Your task to perform on an android device: Open notification settings Image 0: 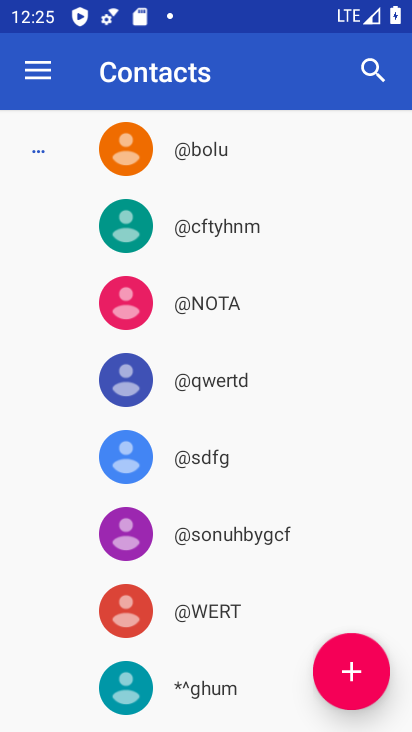
Step 0: press home button
Your task to perform on an android device: Open notification settings Image 1: 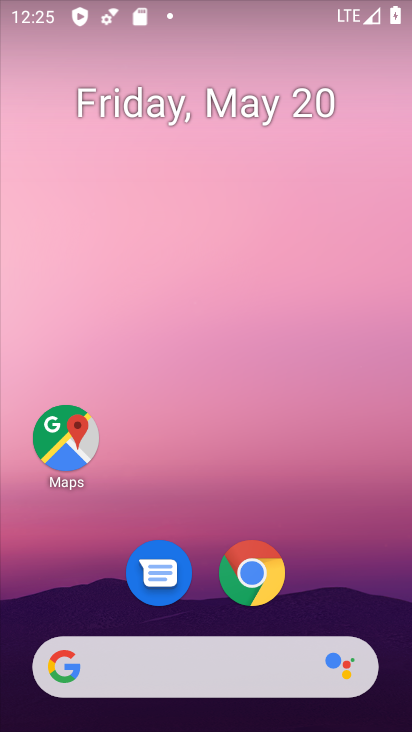
Step 1: drag from (199, 604) to (289, 78)
Your task to perform on an android device: Open notification settings Image 2: 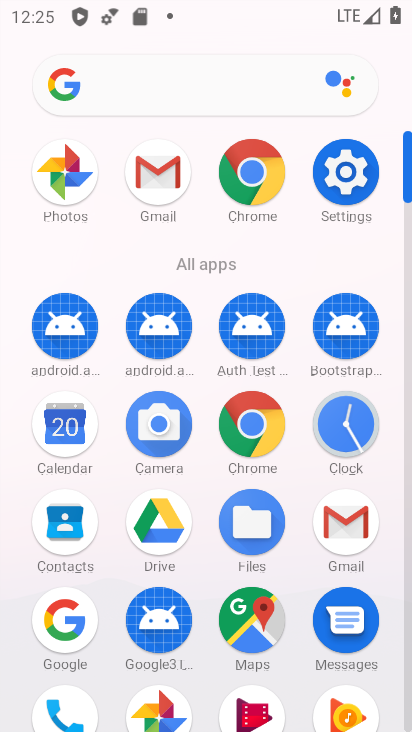
Step 2: drag from (209, 546) to (221, 341)
Your task to perform on an android device: Open notification settings Image 3: 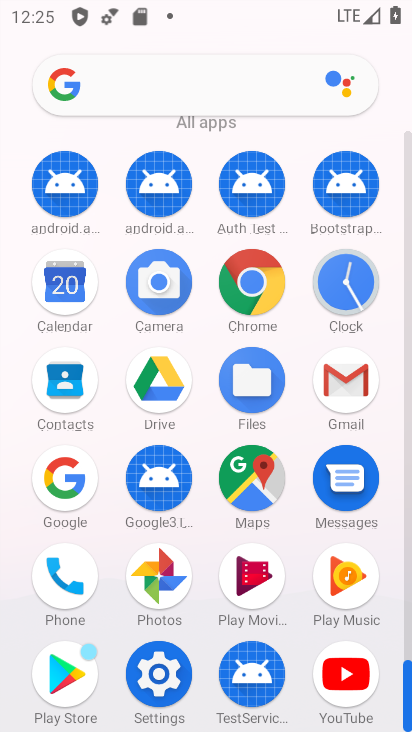
Step 3: click (157, 679)
Your task to perform on an android device: Open notification settings Image 4: 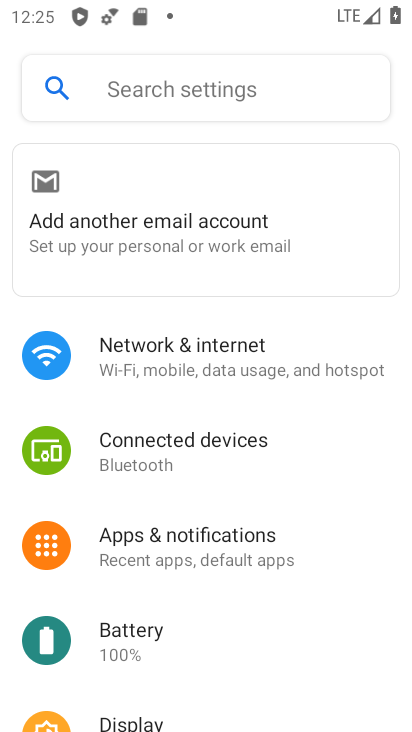
Step 4: click (230, 345)
Your task to perform on an android device: Open notification settings Image 5: 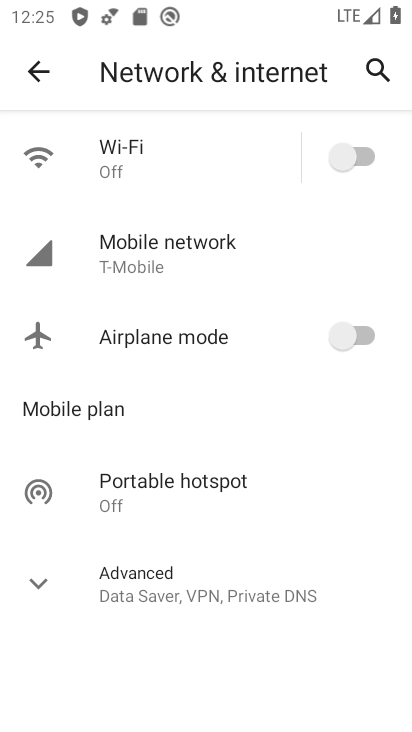
Step 5: click (30, 56)
Your task to perform on an android device: Open notification settings Image 6: 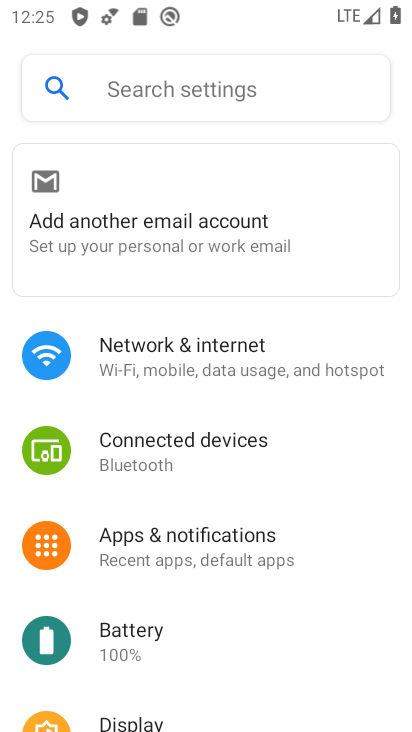
Step 6: click (221, 553)
Your task to perform on an android device: Open notification settings Image 7: 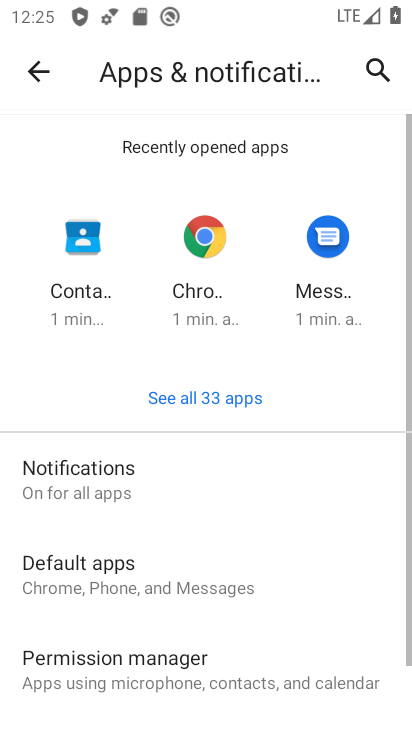
Step 7: click (157, 489)
Your task to perform on an android device: Open notification settings Image 8: 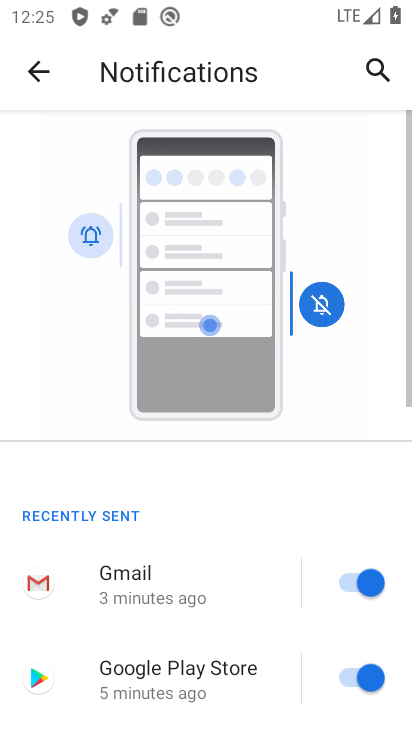
Step 8: task complete